Your task to perform on an android device: toggle sleep mode Image 0: 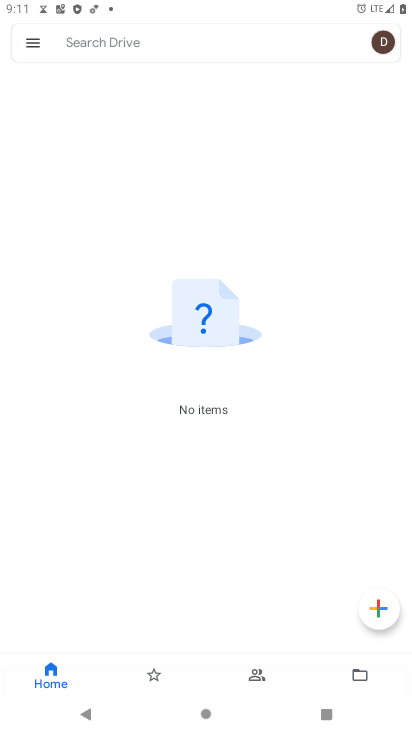
Step 0: press home button
Your task to perform on an android device: toggle sleep mode Image 1: 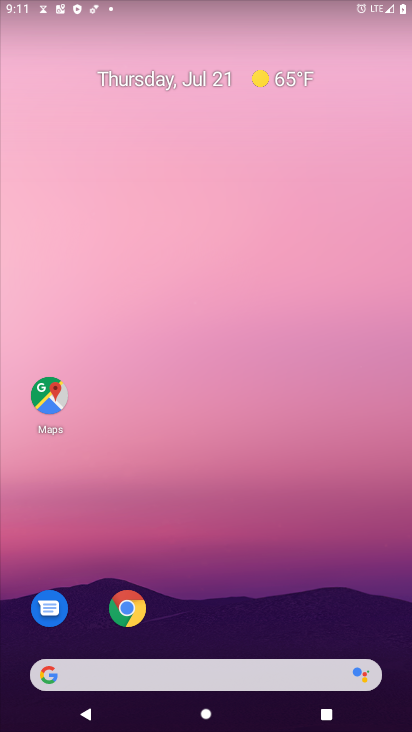
Step 1: drag from (190, 667) to (240, 13)
Your task to perform on an android device: toggle sleep mode Image 2: 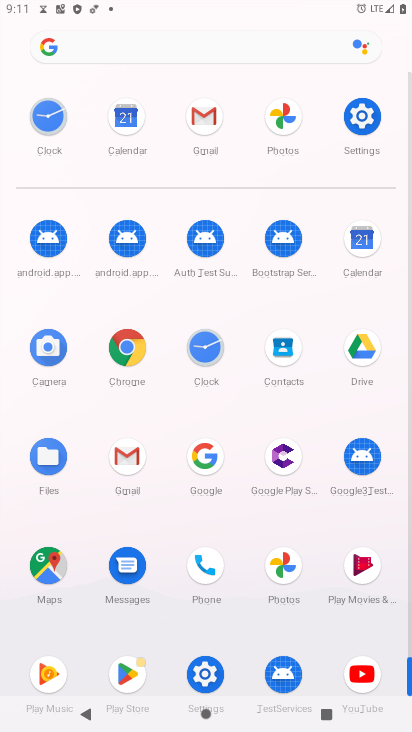
Step 2: click (362, 115)
Your task to perform on an android device: toggle sleep mode Image 3: 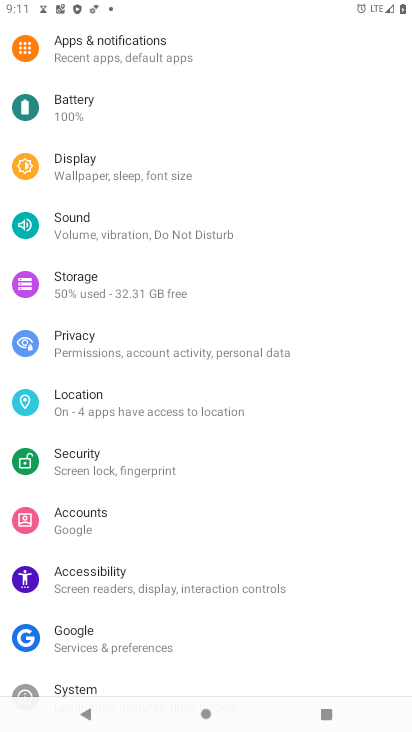
Step 3: click (148, 182)
Your task to perform on an android device: toggle sleep mode Image 4: 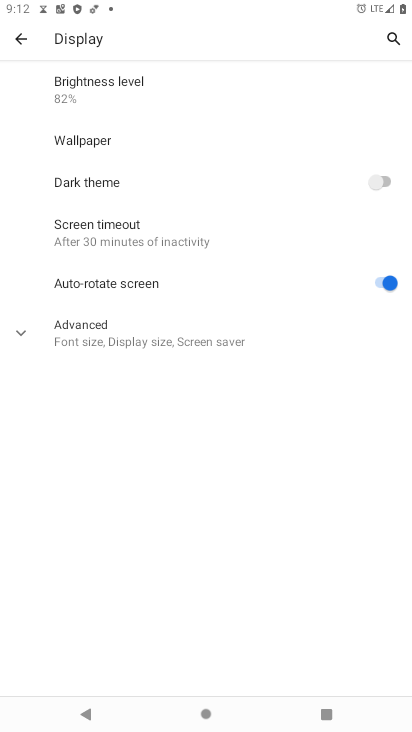
Step 4: click (168, 255)
Your task to perform on an android device: toggle sleep mode Image 5: 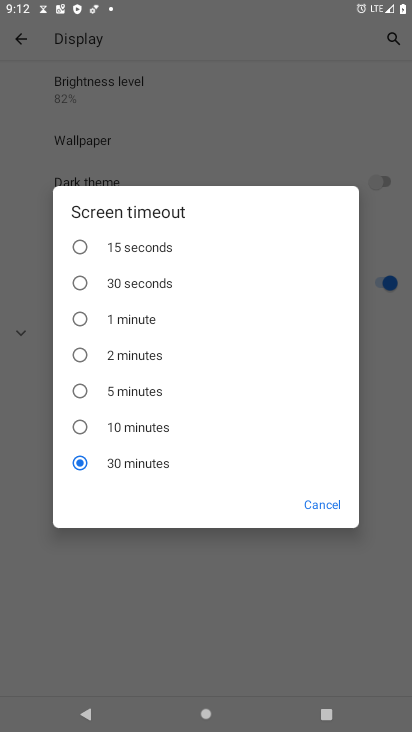
Step 5: click (339, 504)
Your task to perform on an android device: toggle sleep mode Image 6: 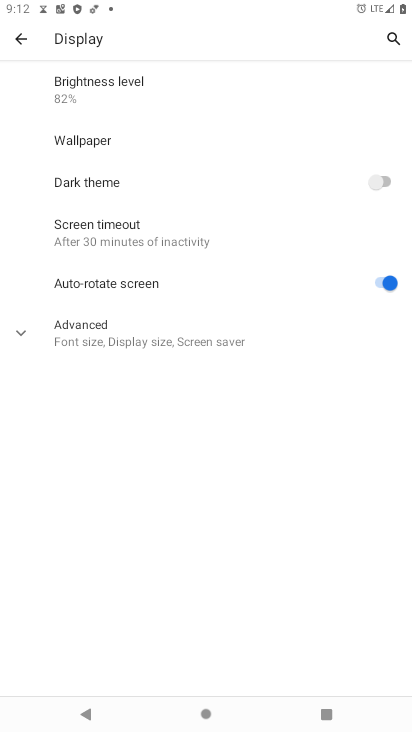
Step 6: task complete